Your task to perform on an android device: Open calendar and show me the second week of next month Image 0: 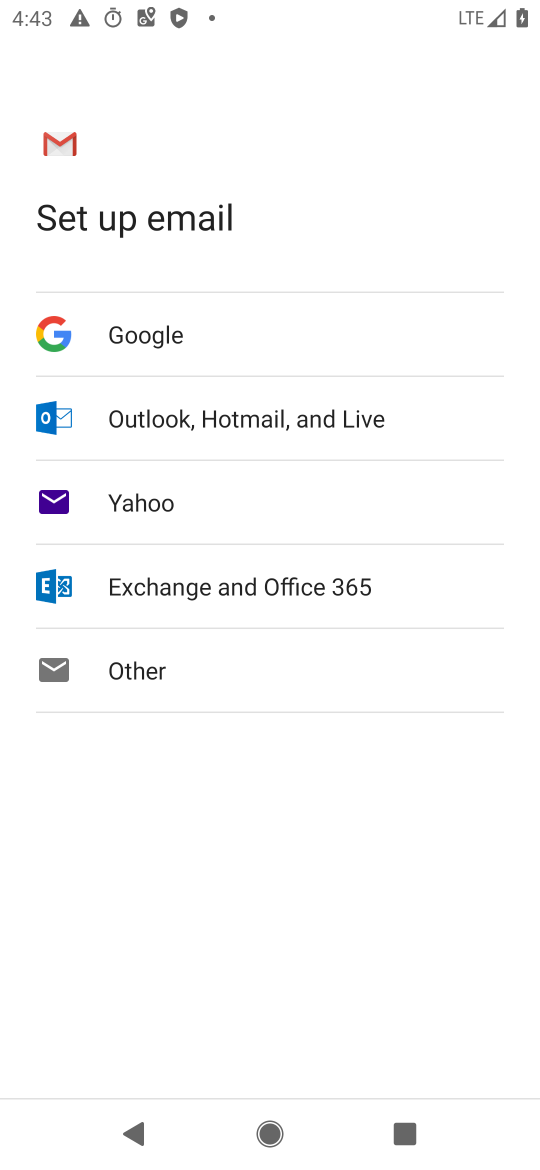
Step 0: press home button
Your task to perform on an android device: Open calendar and show me the second week of next month Image 1: 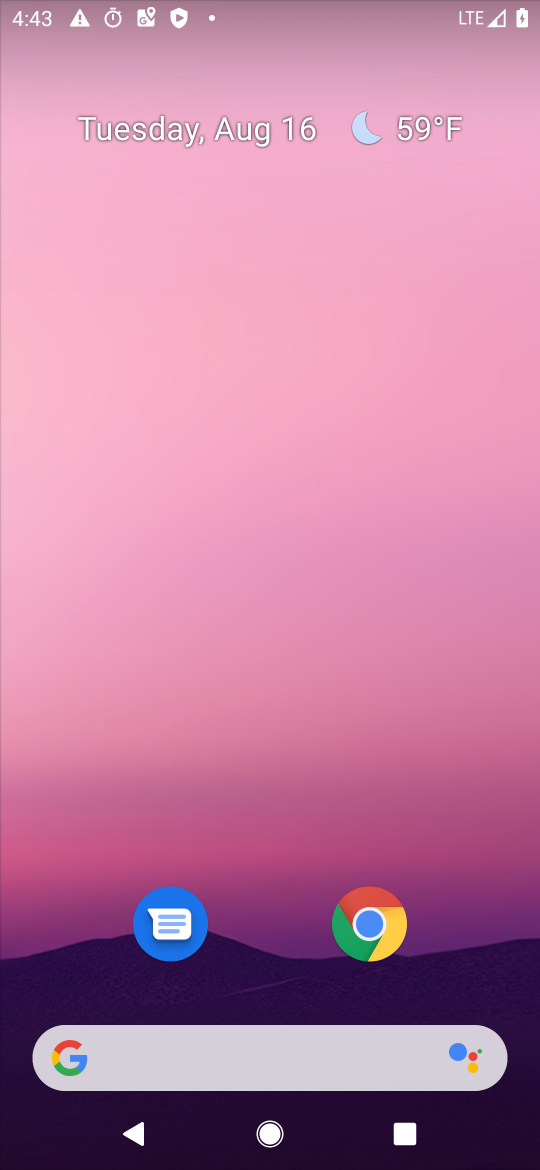
Step 1: click (244, 132)
Your task to perform on an android device: Open calendar and show me the second week of next month Image 2: 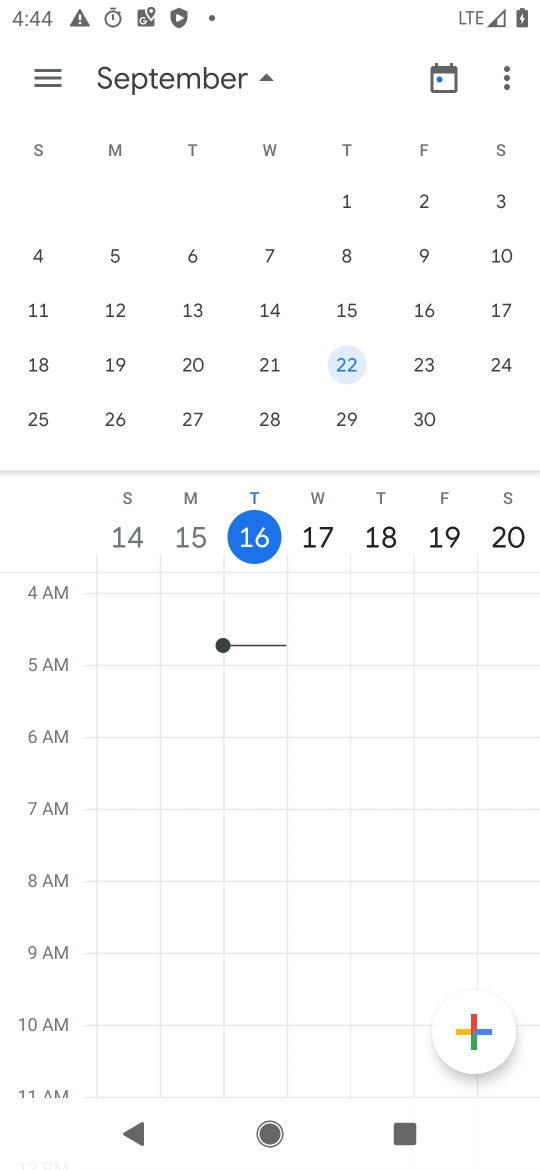
Step 2: task complete